Your task to perform on an android device: remove spam from my inbox in the gmail app Image 0: 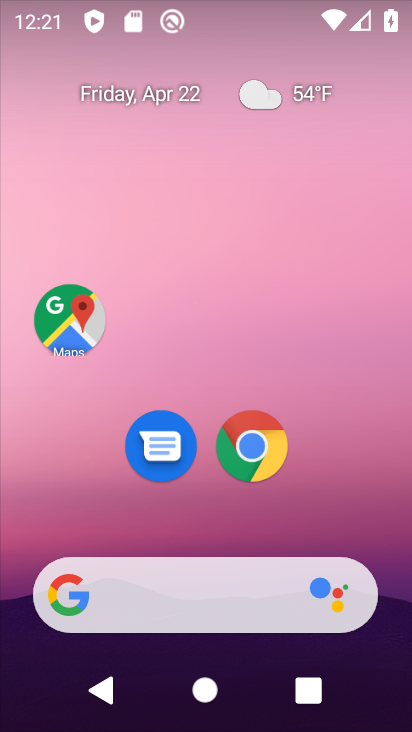
Step 0: drag from (397, 542) to (339, 150)
Your task to perform on an android device: remove spam from my inbox in the gmail app Image 1: 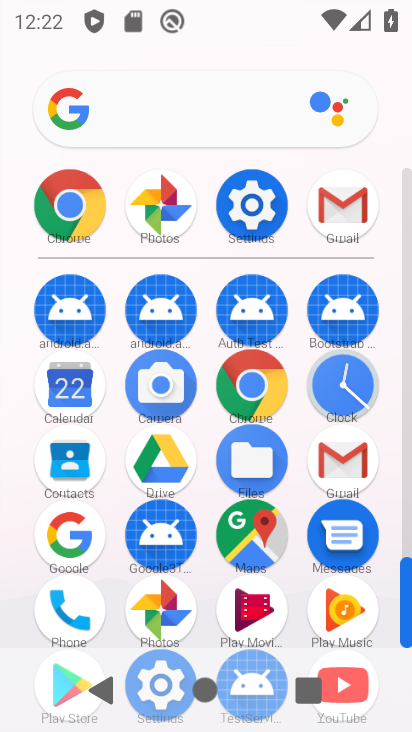
Step 1: click (349, 221)
Your task to perform on an android device: remove spam from my inbox in the gmail app Image 2: 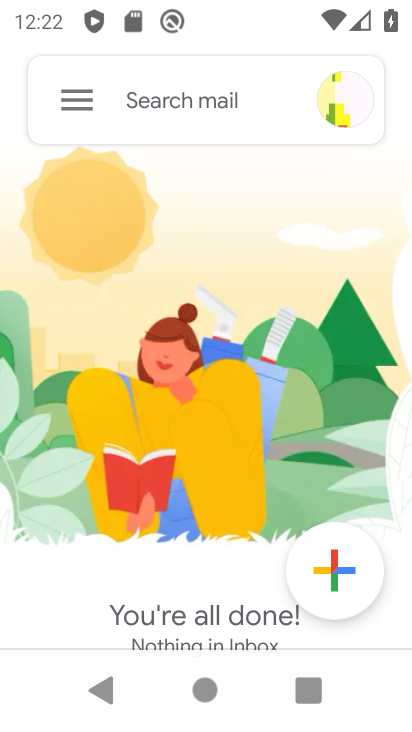
Step 2: click (78, 98)
Your task to perform on an android device: remove spam from my inbox in the gmail app Image 3: 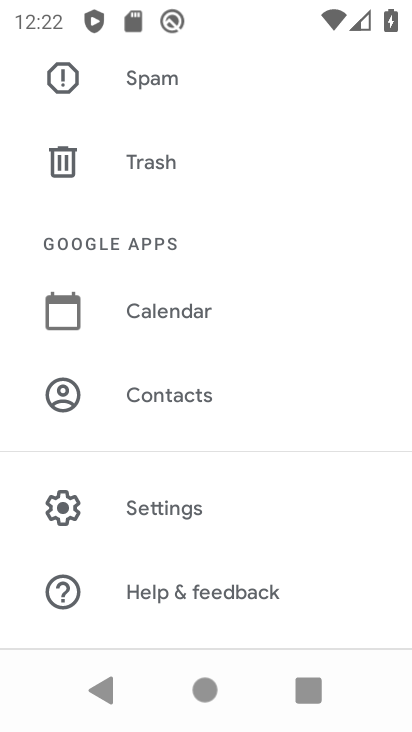
Step 3: click (154, 77)
Your task to perform on an android device: remove spam from my inbox in the gmail app Image 4: 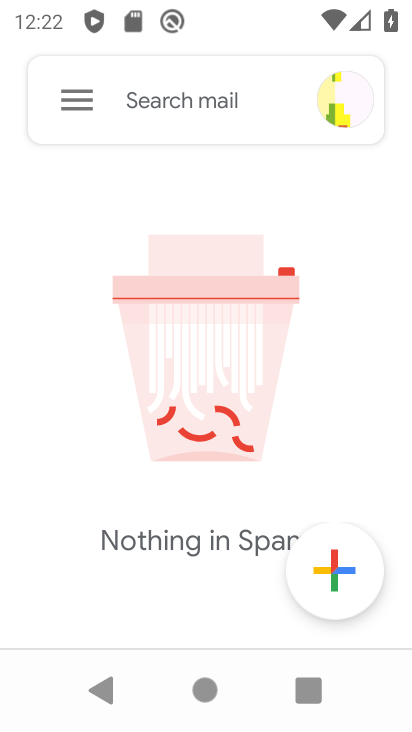
Step 4: task complete